Your task to perform on an android device: What's the weather going to be tomorrow? Image 0: 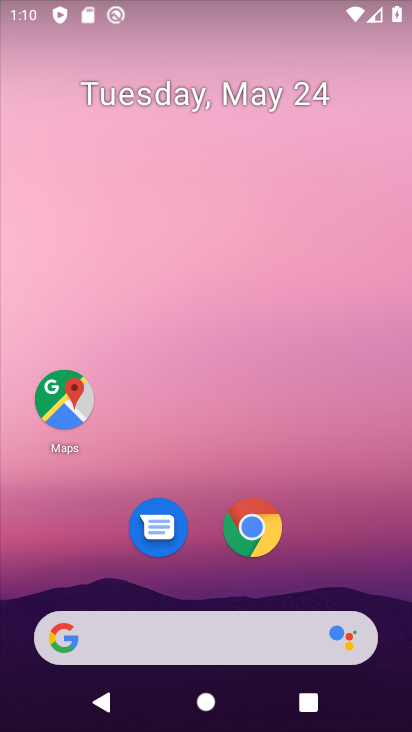
Step 0: drag from (233, 72) to (218, 180)
Your task to perform on an android device: What's the weather going to be tomorrow? Image 1: 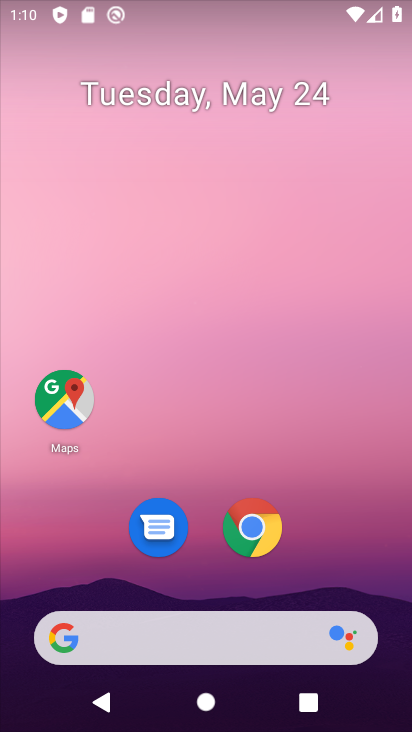
Step 1: drag from (273, 272) to (262, 76)
Your task to perform on an android device: What's the weather going to be tomorrow? Image 2: 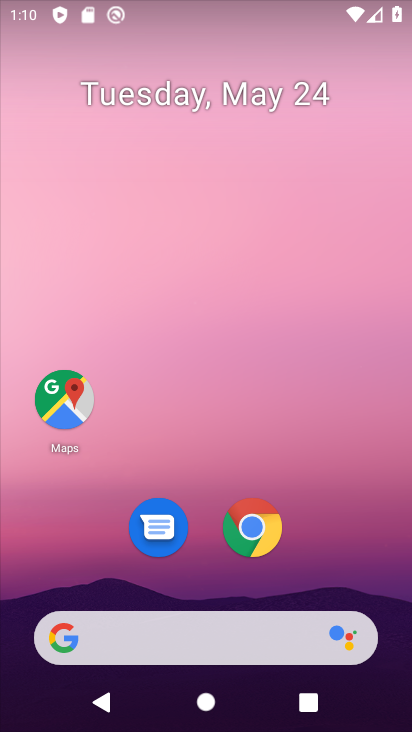
Step 2: drag from (314, 565) to (294, 73)
Your task to perform on an android device: What's the weather going to be tomorrow? Image 3: 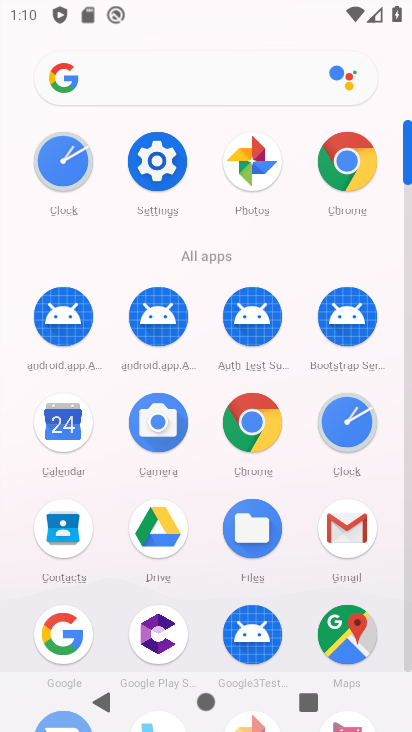
Step 3: click (74, 637)
Your task to perform on an android device: What's the weather going to be tomorrow? Image 4: 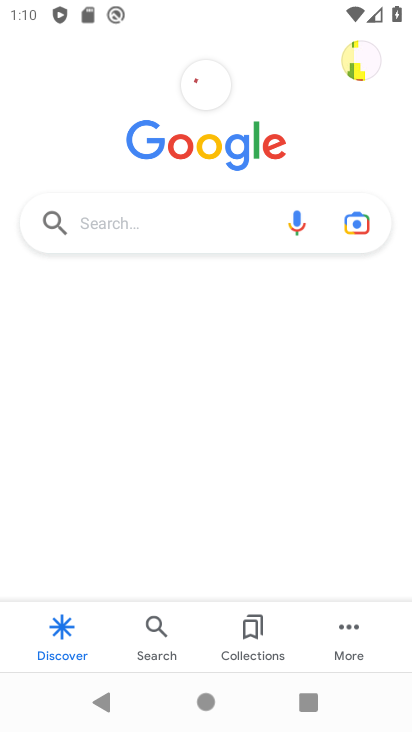
Step 4: click (167, 226)
Your task to perform on an android device: What's the weather going to be tomorrow? Image 5: 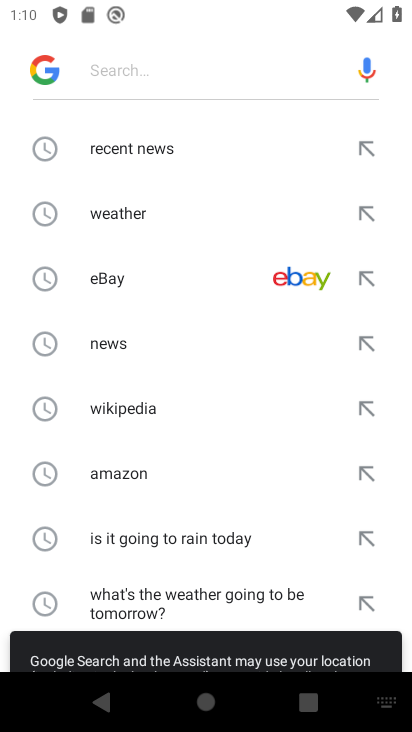
Step 5: click (126, 214)
Your task to perform on an android device: What's the weather going to be tomorrow? Image 6: 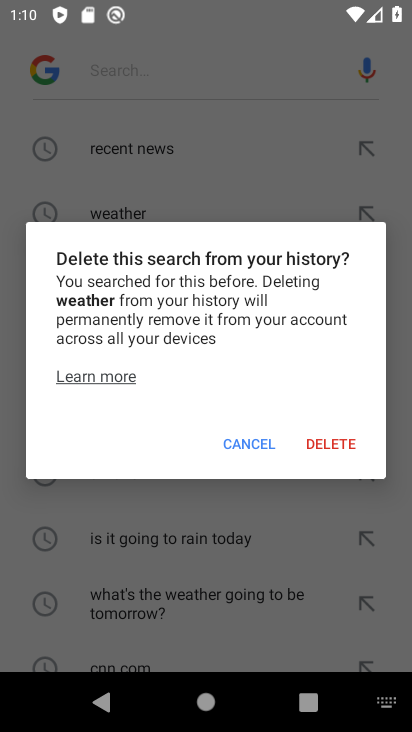
Step 6: click (262, 443)
Your task to perform on an android device: What's the weather going to be tomorrow? Image 7: 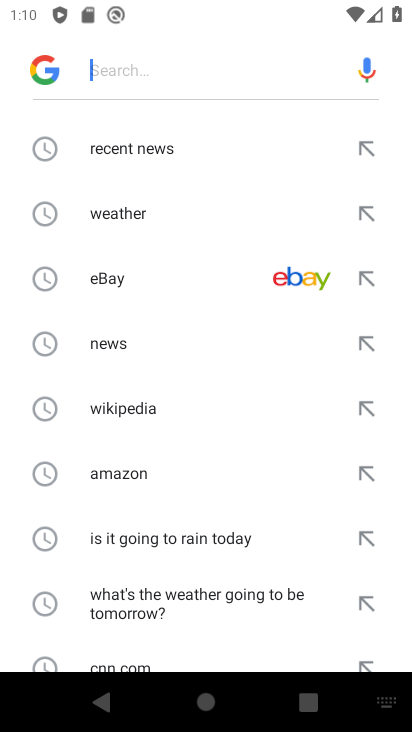
Step 7: click (115, 209)
Your task to perform on an android device: What's the weather going to be tomorrow? Image 8: 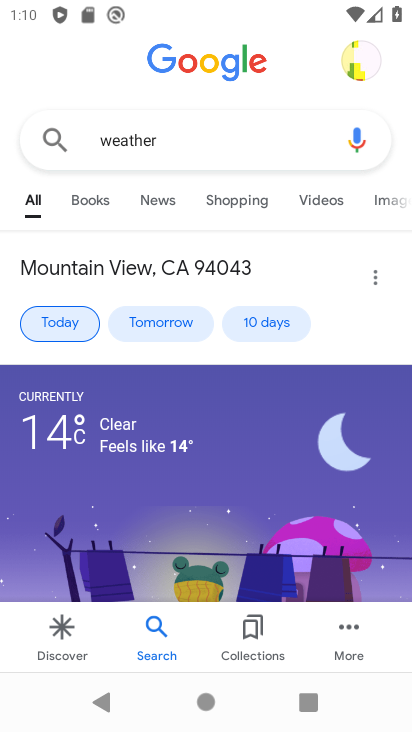
Step 8: click (164, 318)
Your task to perform on an android device: What's the weather going to be tomorrow? Image 9: 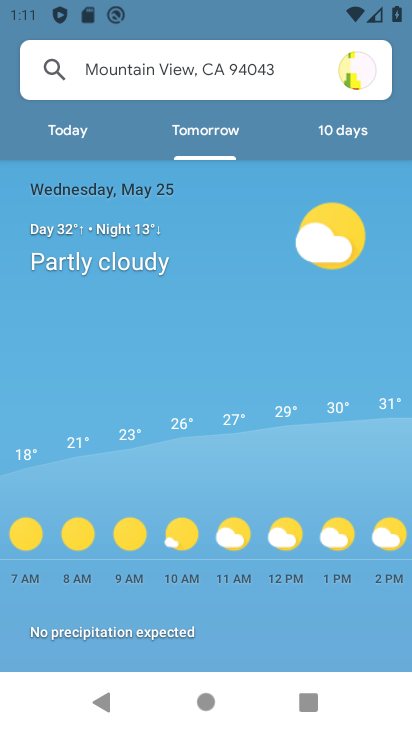
Step 9: click (296, 251)
Your task to perform on an android device: What's the weather going to be tomorrow? Image 10: 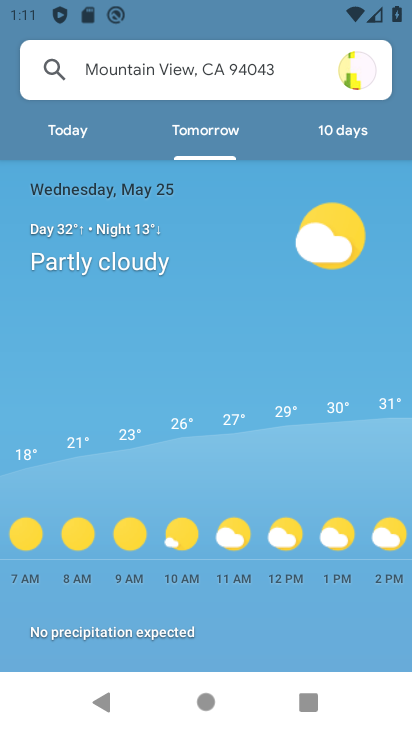
Step 10: task complete